Your task to perform on an android device: Open privacy settings Image 0: 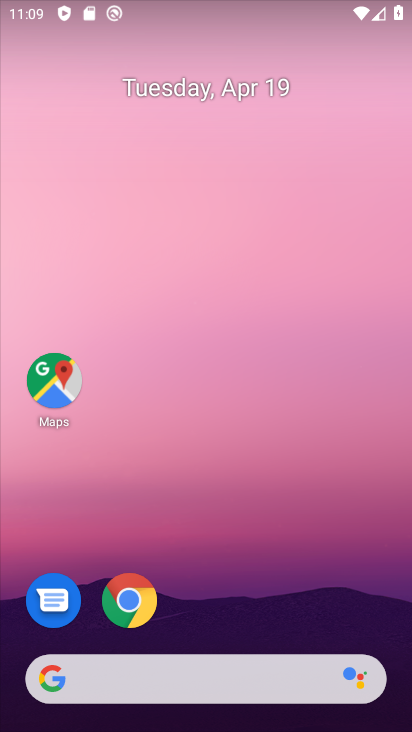
Step 0: drag from (355, 618) to (338, 42)
Your task to perform on an android device: Open privacy settings Image 1: 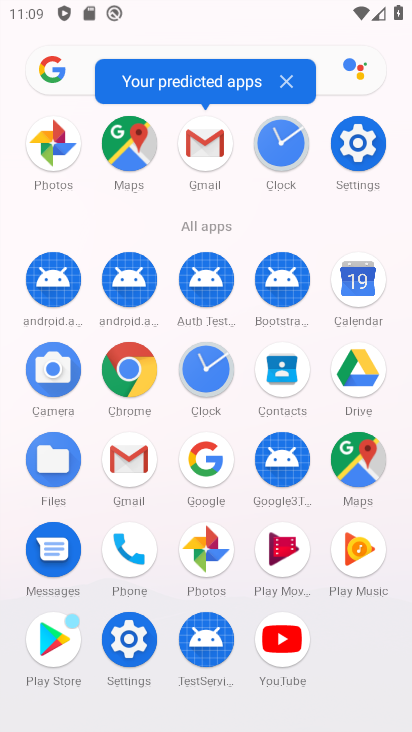
Step 1: click (365, 146)
Your task to perform on an android device: Open privacy settings Image 2: 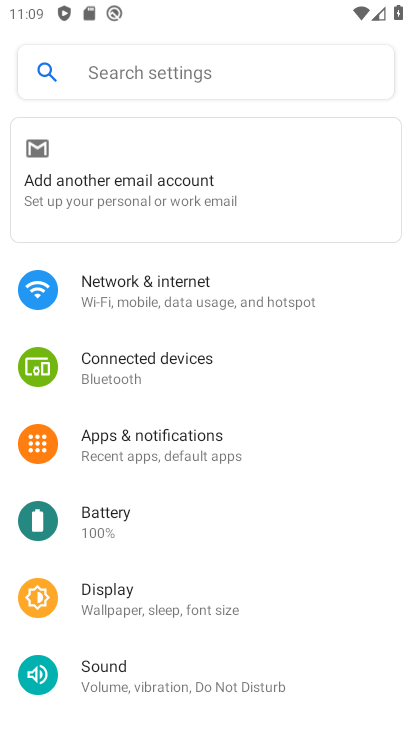
Step 2: drag from (358, 638) to (371, 248)
Your task to perform on an android device: Open privacy settings Image 3: 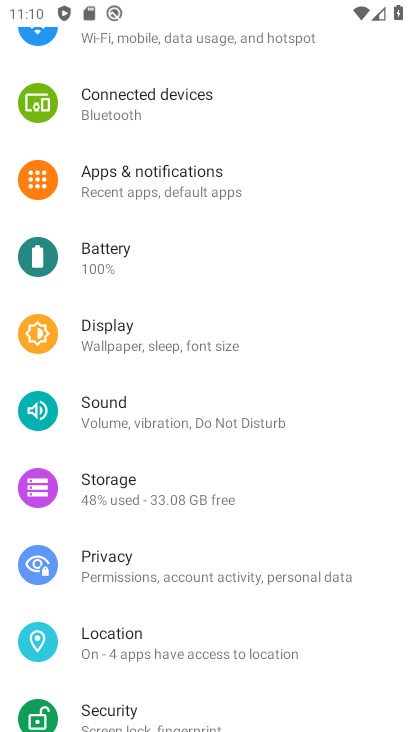
Step 3: click (84, 572)
Your task to perform on an android device: Open privacy settings Image 4: 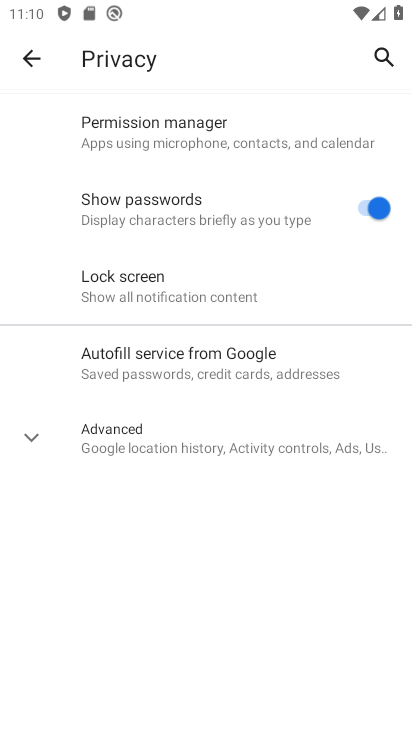
Step 4: task complete